Your task to perform on an android device: Go to Amazon Image 0: 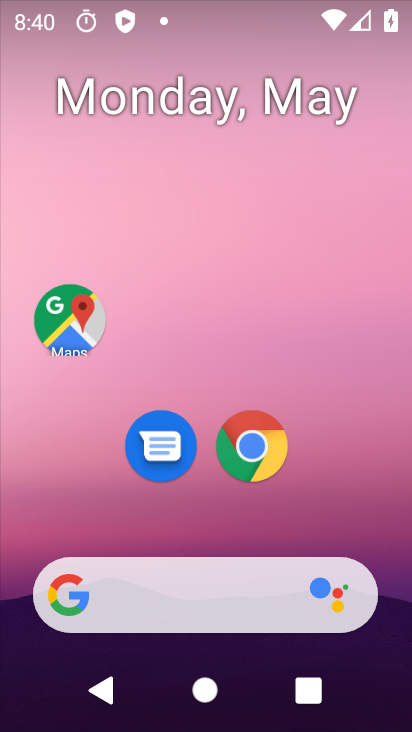
Step 0: click (254, 437)
Your task to perform on an android device: Go to Amazon Image 1: 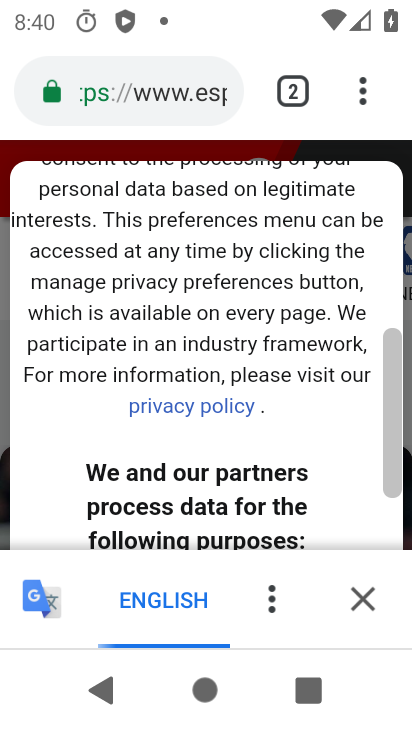
Step 1: click (138, 93)
Your task to perform on an android device: Go to Amazon Image 2: 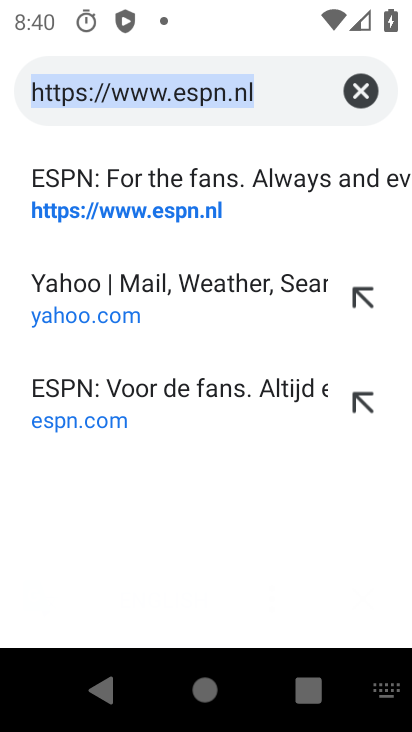
Step 2: click (349, 91)
Your task to perform on an android device: Go to Amazon Image 3: 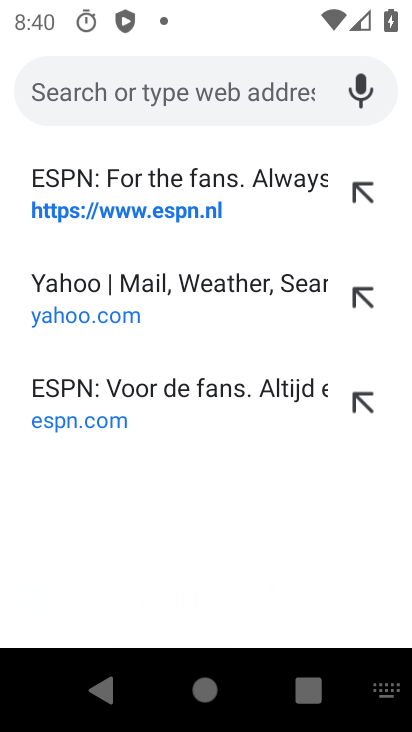
Step 3: click (101, 92)
Your task to perform on an android device: Go to Amazon Image 4: 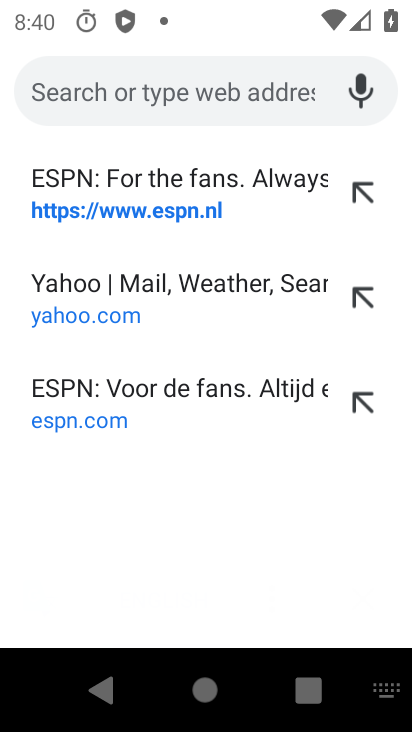
Step 4: type "amazon"
Your task to perform on an android device: Go to Amazon Image 5: 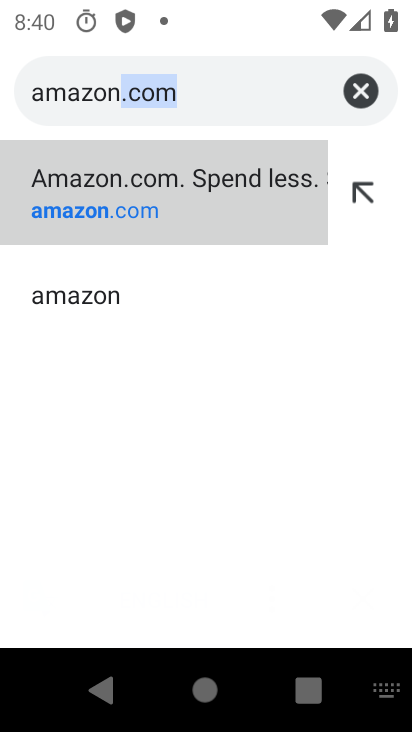
Step 5: click (90, 307)
Your task to perform on an android device: Go to Amazon Image 6: 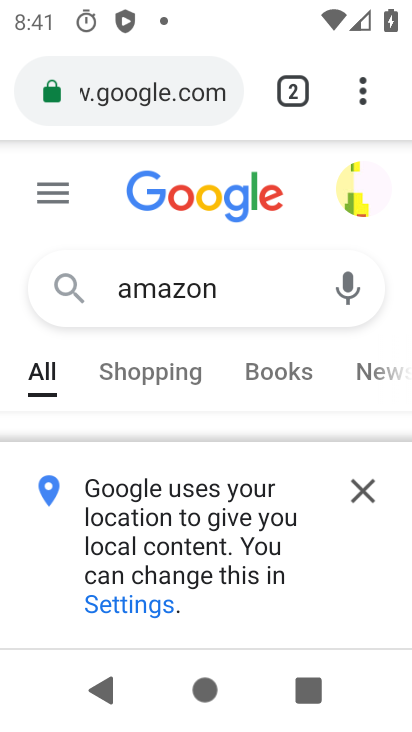
Step 6: click (364, 488)
Your task to perform on an android device: Go to Amazon Image 7: 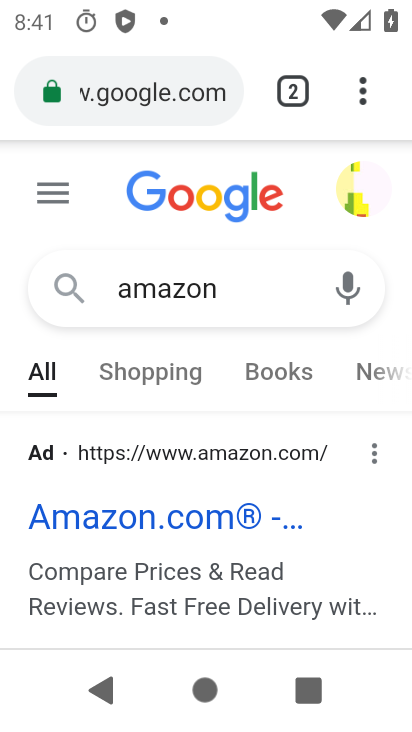
Step 7: click (87, 521)
Your task to perform on an android device: Go to Amazon Image 8: 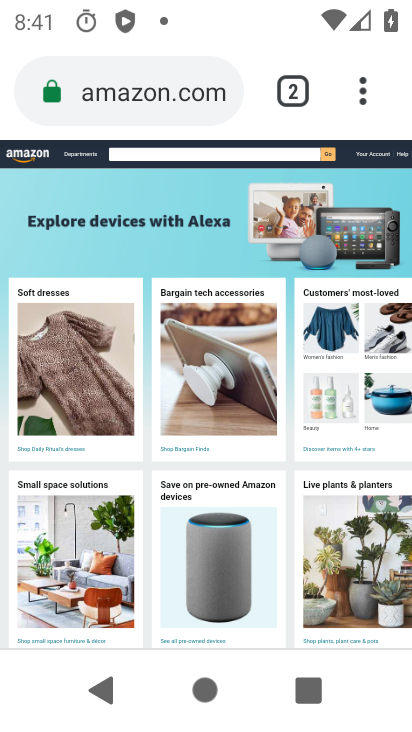
Step 8: task complete